Your task to perform on an android device: uninstall "ColorNote Notepad Notes" Image 0: 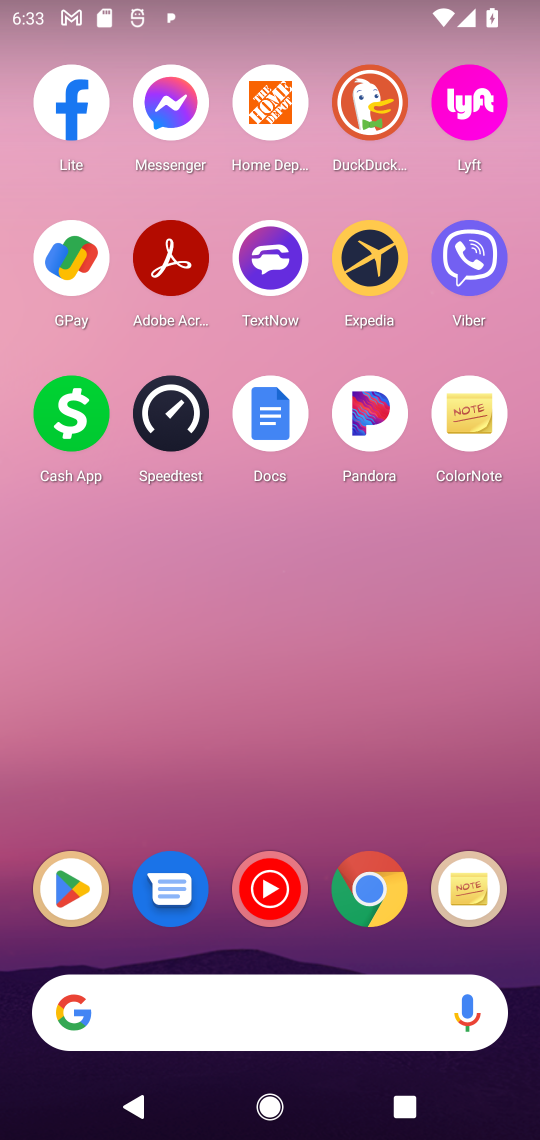
Step 0: drag from (310, 605) to (272, 468)
Your task to perform on an android device: uninstall "ColorNote Notepad Notes" Image 1: 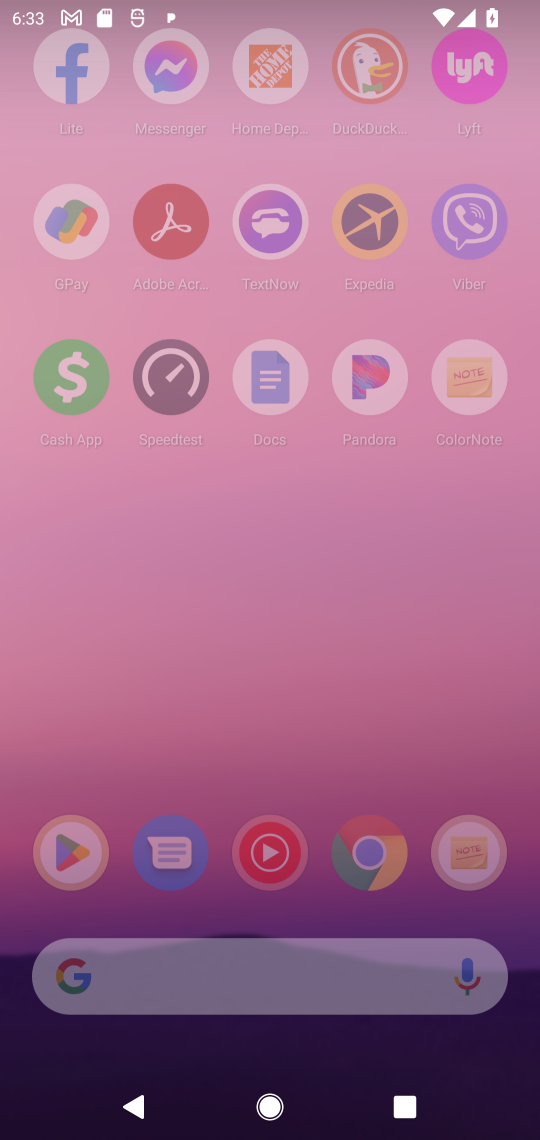
Step 1: drag from (344, 688) to (312, 352)
Your task to perform on an android device: uninstall "ColorNote Notepad Notes" Image 2: 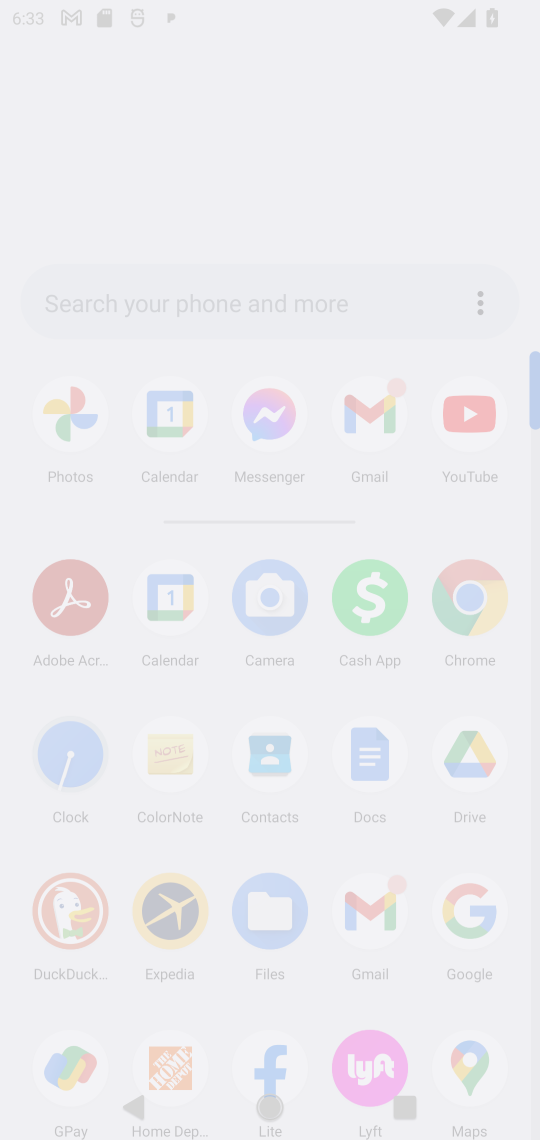
Step 2: drag from (290, 729) to (198, 310)
Your task to perform on an android device: uninstall "ColorNote Notepad Notes" Image 3: 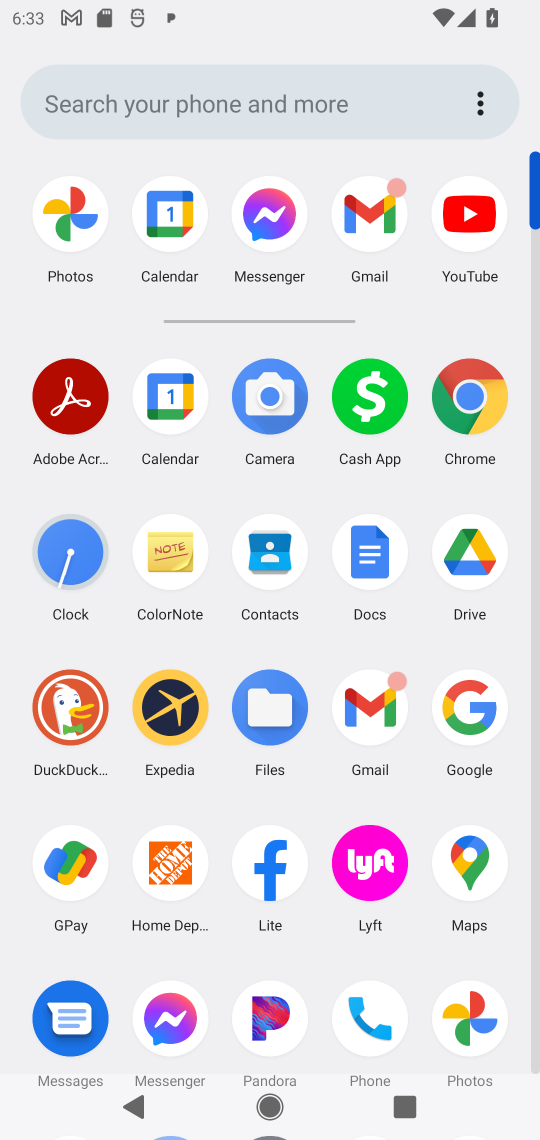
Step 3: drag from (318, 858) to (295, 250)
Your task to perform on an android device: uninstall "ColorNote Notepad Notes" Image 4: 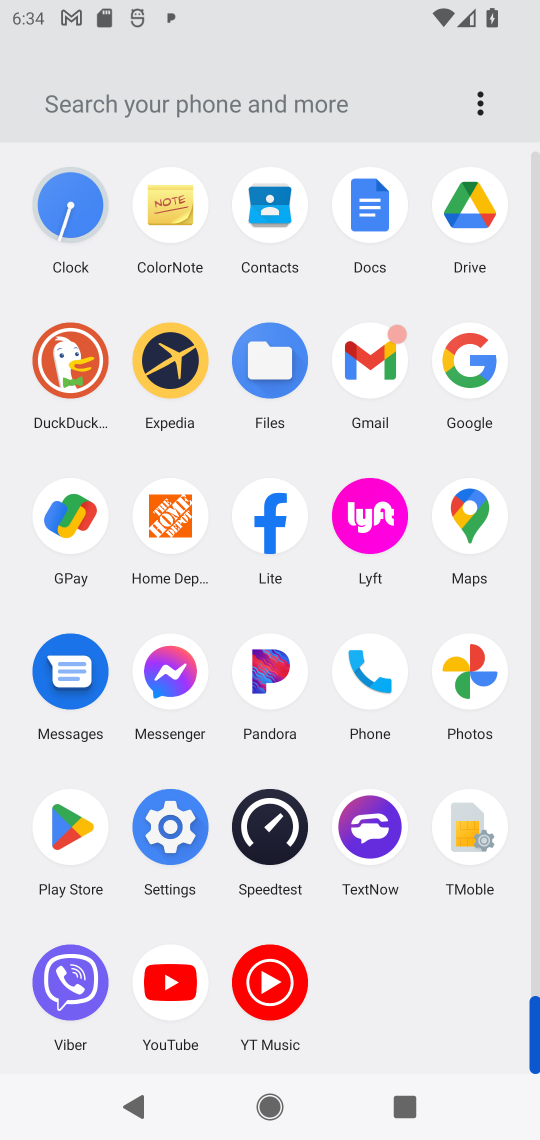
Step 4: click (70, 813)
Your task to perform on an android device: uninstall "ColorNote Notepad Notes" Image 5: 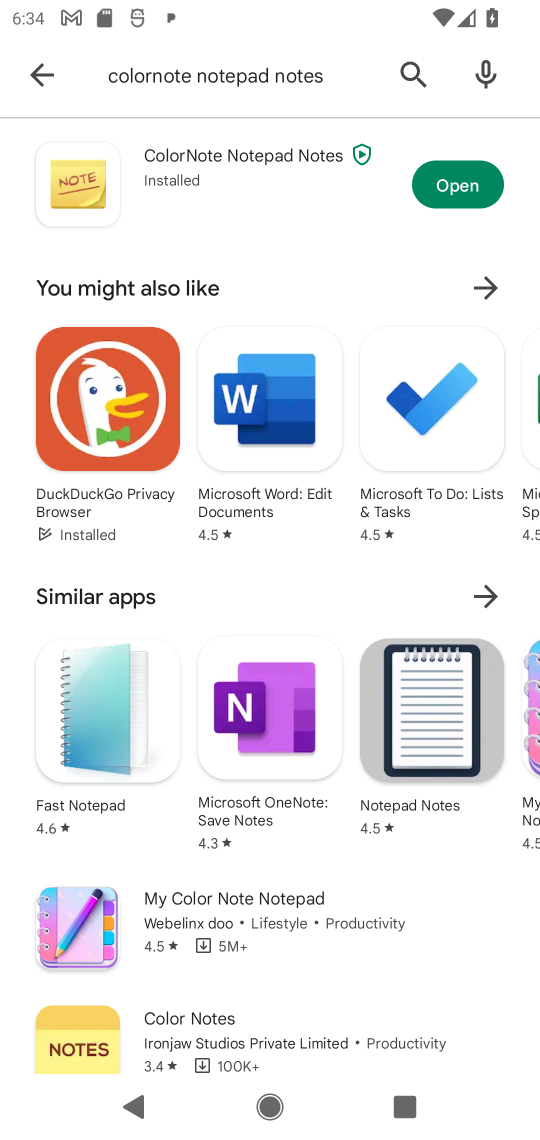
Step 5: click (79, 828)
Your task to perform on an android device: uninstall "ColorNote Notepad Notes" Image 6: 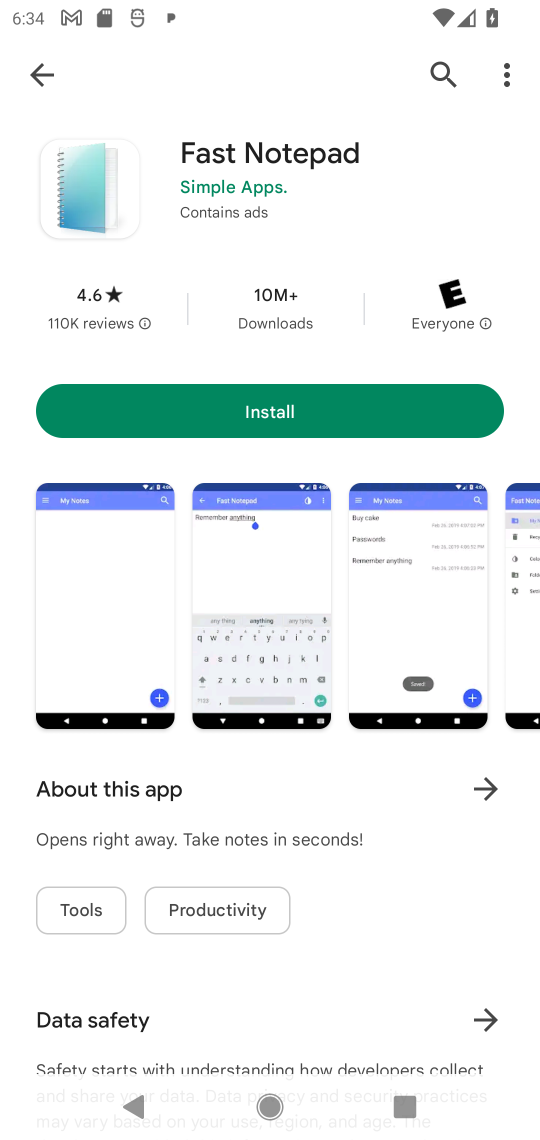
Step 6: click (41, 72)
Your task to perform on an android device: uninstall "ColorNote Notepad Notes" Image 7: 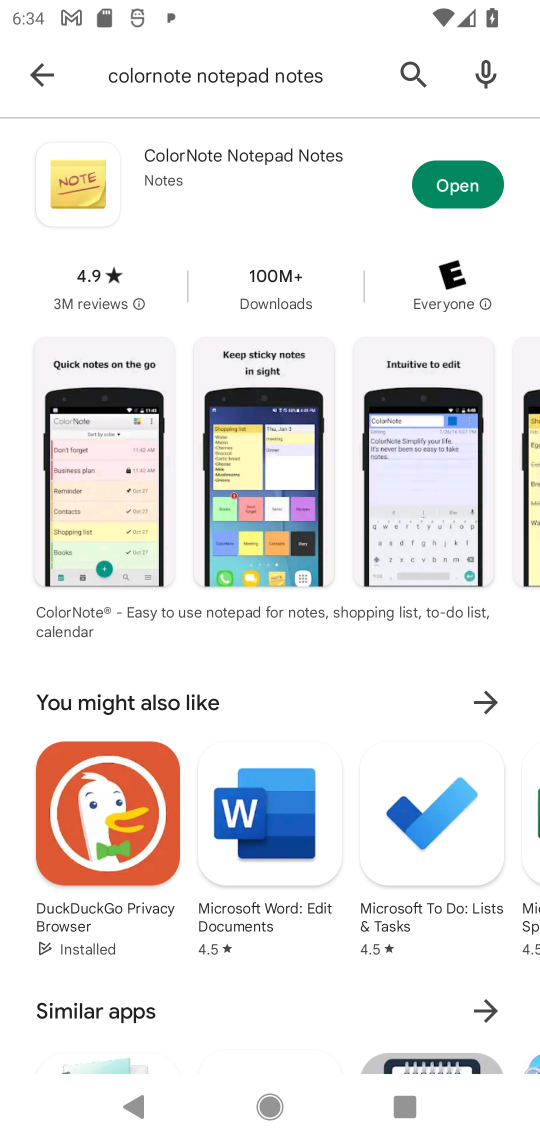
Step 7: click (42, 69)
Your task to perform on an android device: uninstall "ColorNote Notepad Notes" Image 8: 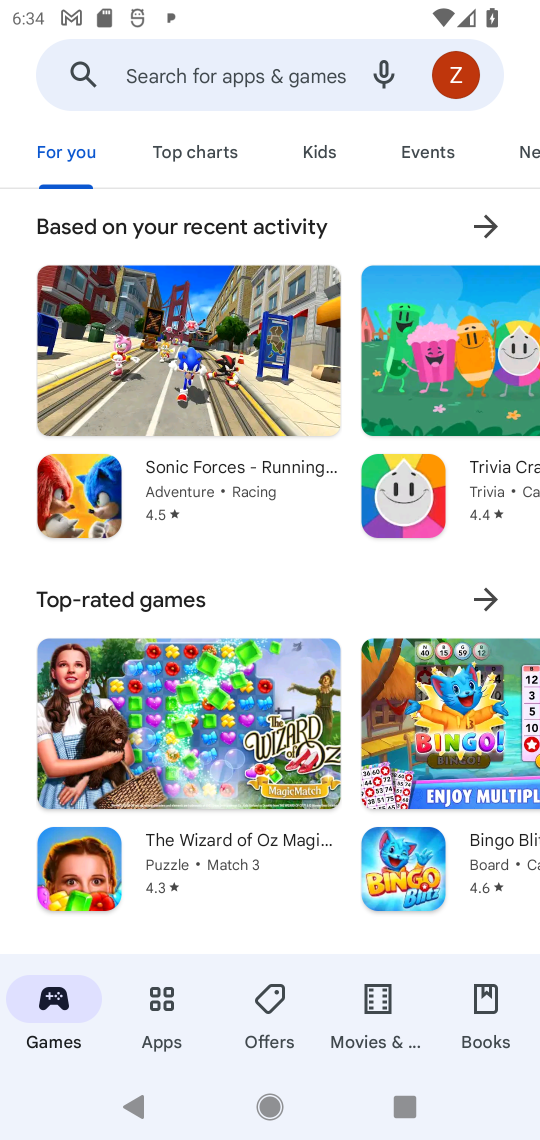
Step 8: click (167, 64)
Your task to perform on an android device: uninstall "ColorNote Notepad Notes" Image 9: 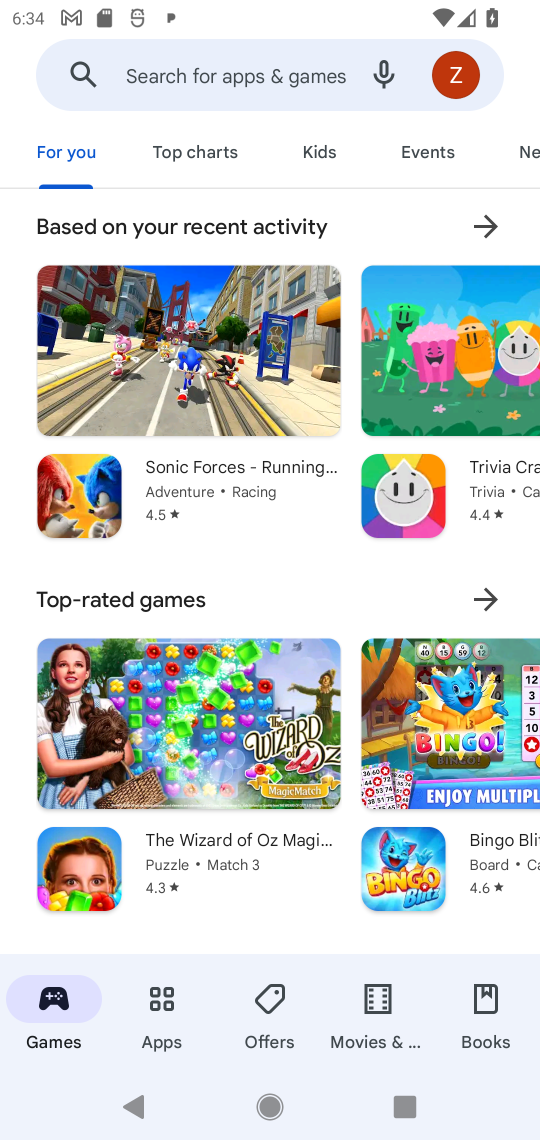
Step 9: click (167, 64)
Your task to perform on an android device: uninstall "ColorNote Notepad Notes" Image 10: 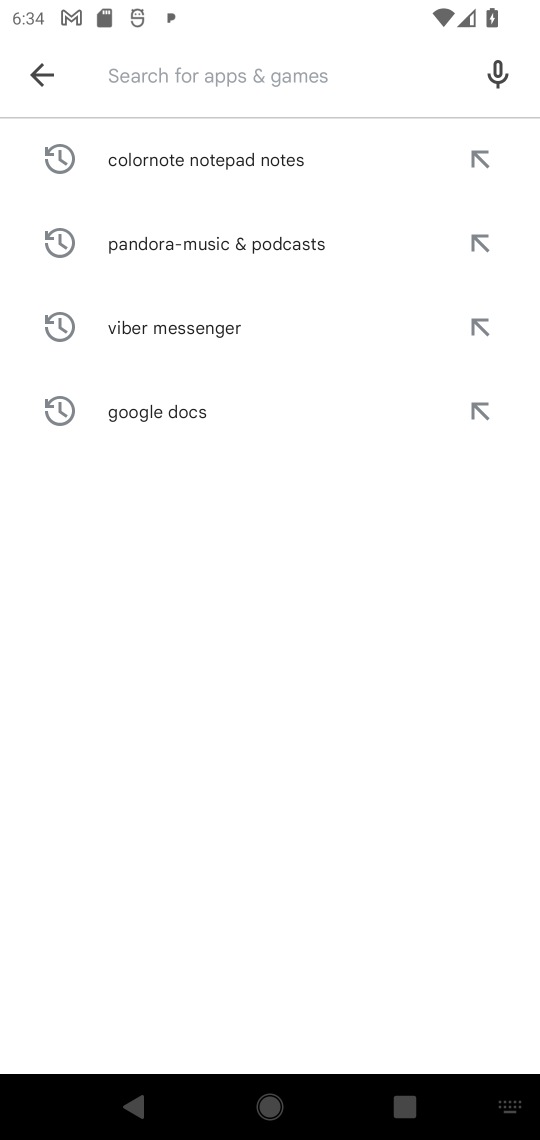
Step 10: click (187, 75)
Your task to perform on an android device: uninstall "ColorNote Notepad Notes" Image 11: 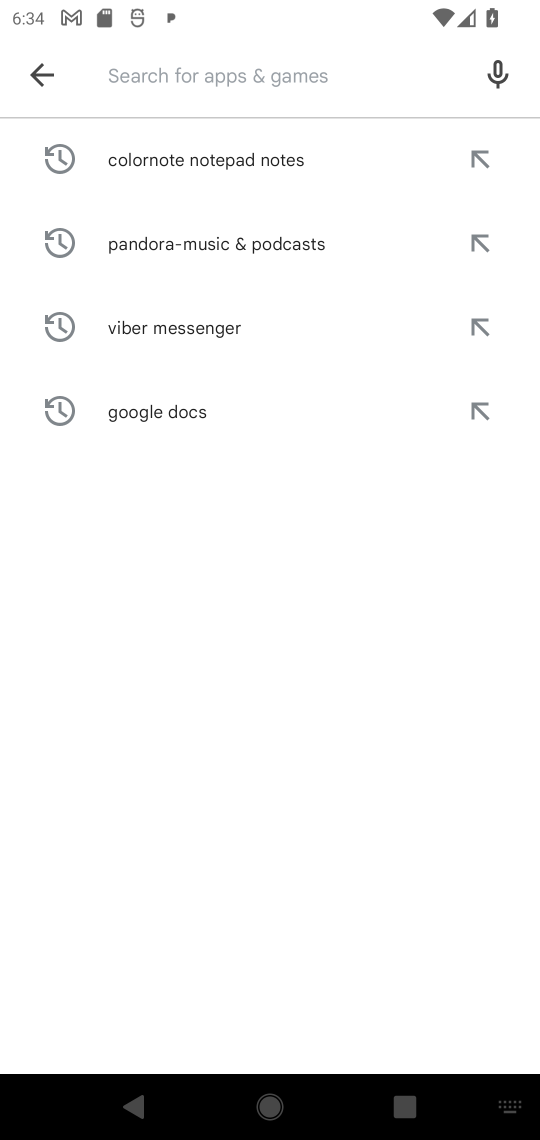
Step 11: click (187, 75)
Your task to perform on an android device: uninstall "ColorNote Notepad Notes" Image 12: 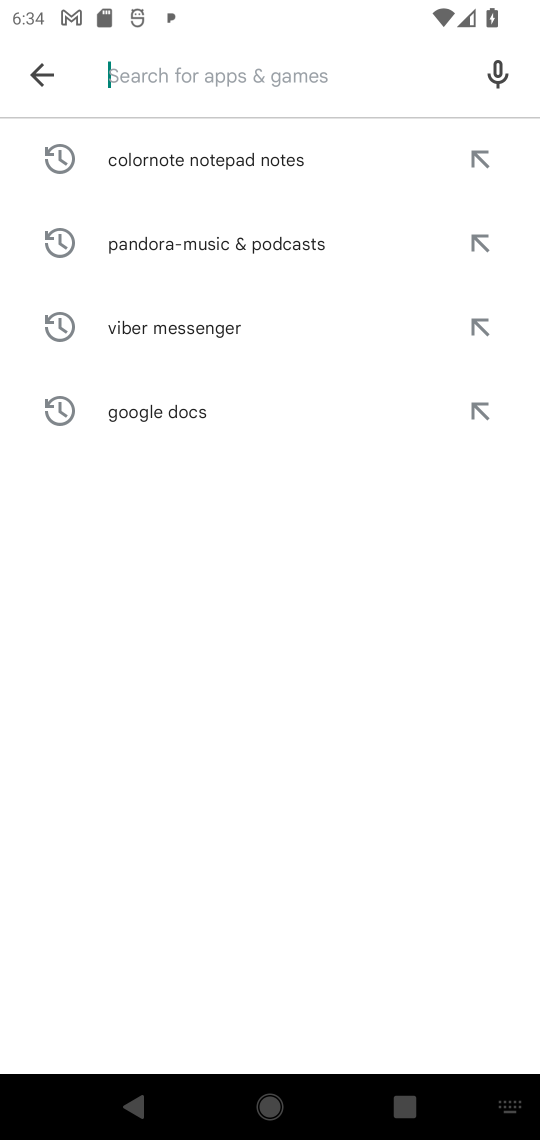
Step 12: click (473, 152)
Your task to perform on an android device: uninstall "ColorNote Notepad Notes" Image 13: 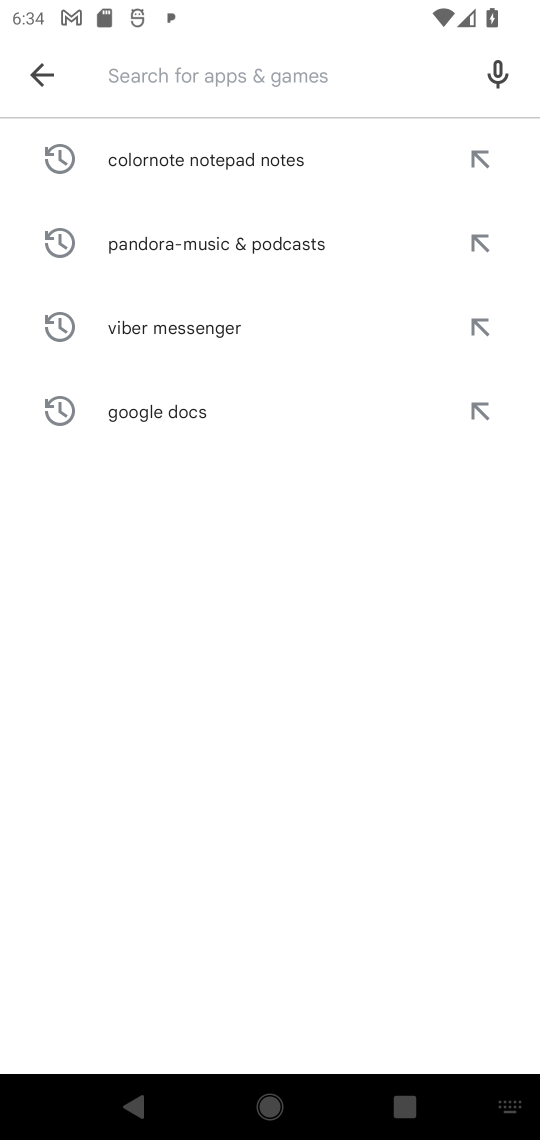
Step 13: click (476, 150)
Your task to perform on an android device: uninstall "ColorNote Notepad Notes" Image 14: 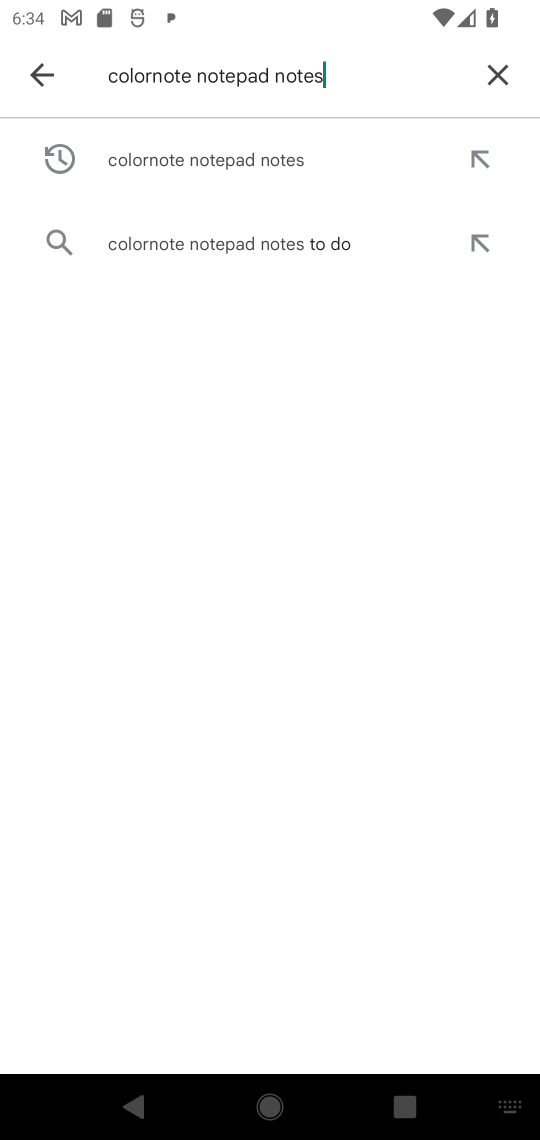
Step 14: click (244, 153)
Your task to perform on an android device: uninstall "ColorNote Notepad Notes" Image 15: 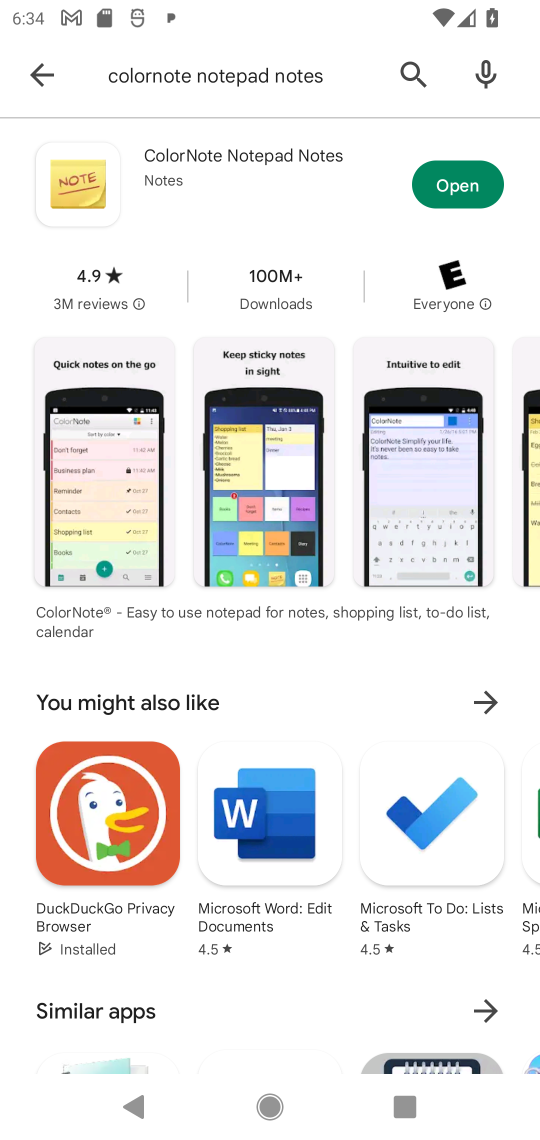
Step 15: click (453, 188)
Your task to perform on an android device: uninstall "ColorNote Notepad Notes" Image 16: 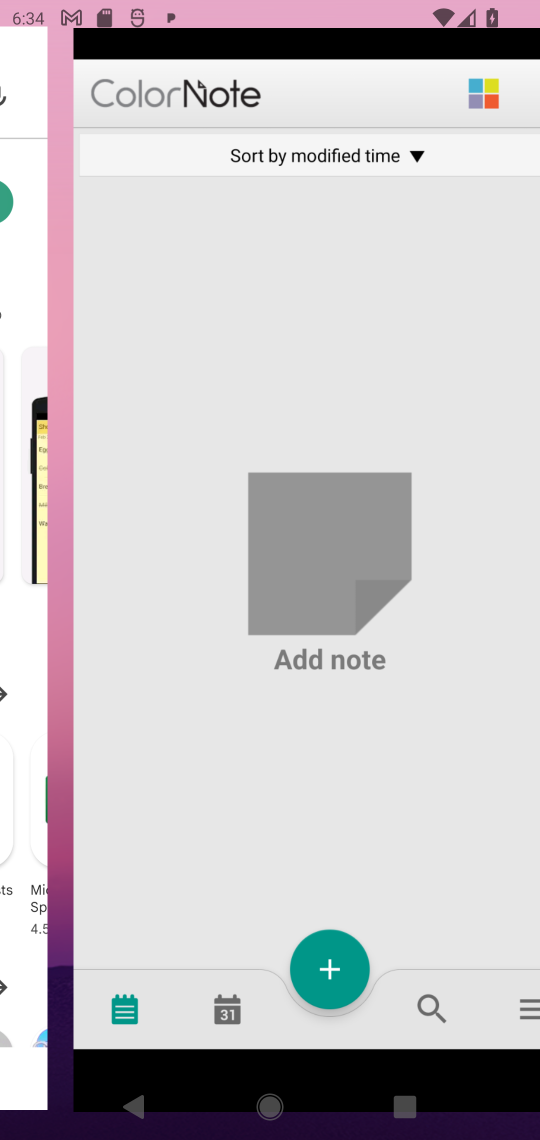
Step 16: click (456, 182)
Your task to perform on an android device: uninstall "ColorNote Notepad Notes" Image 17: 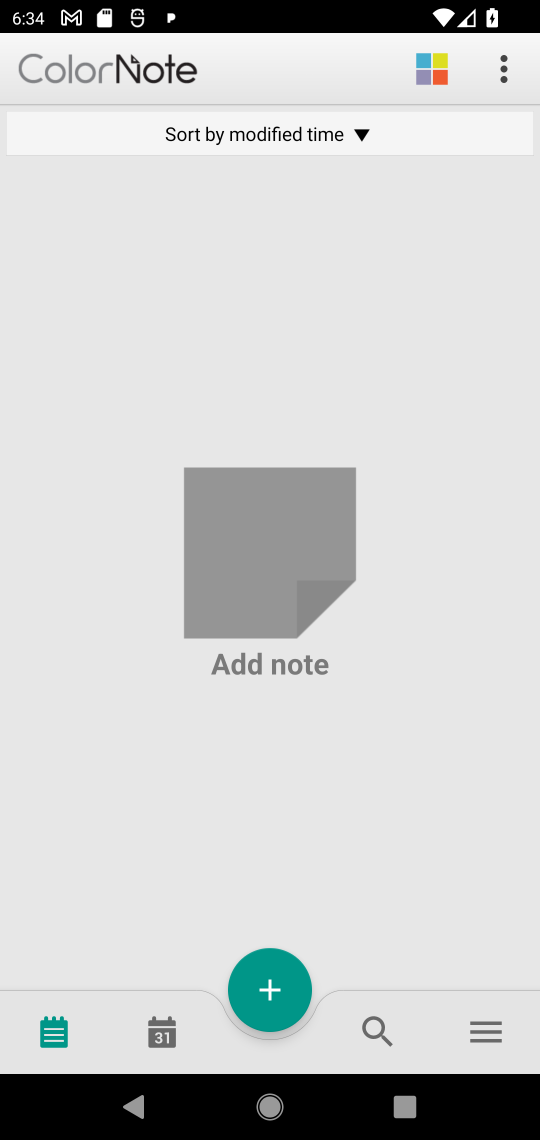
Step 17: press back button
Your task to perform on an android device: uninstall "ColorNote Notepad Notes" Image 18: 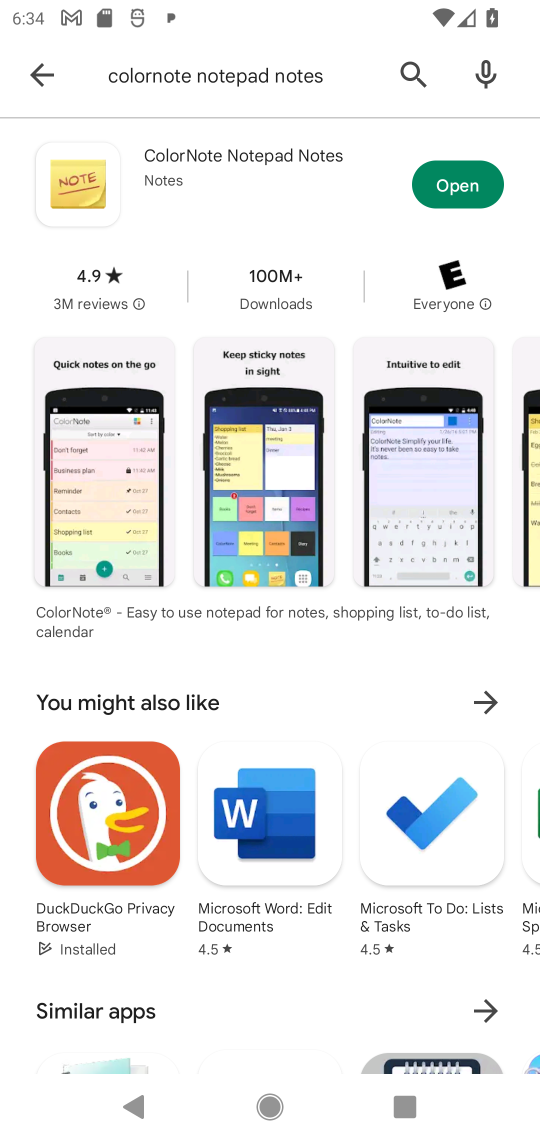
Step 18: click (72, 188)
Your task to perform on an android device: uninstall "ColorNote Notepad Notes" Image 19: 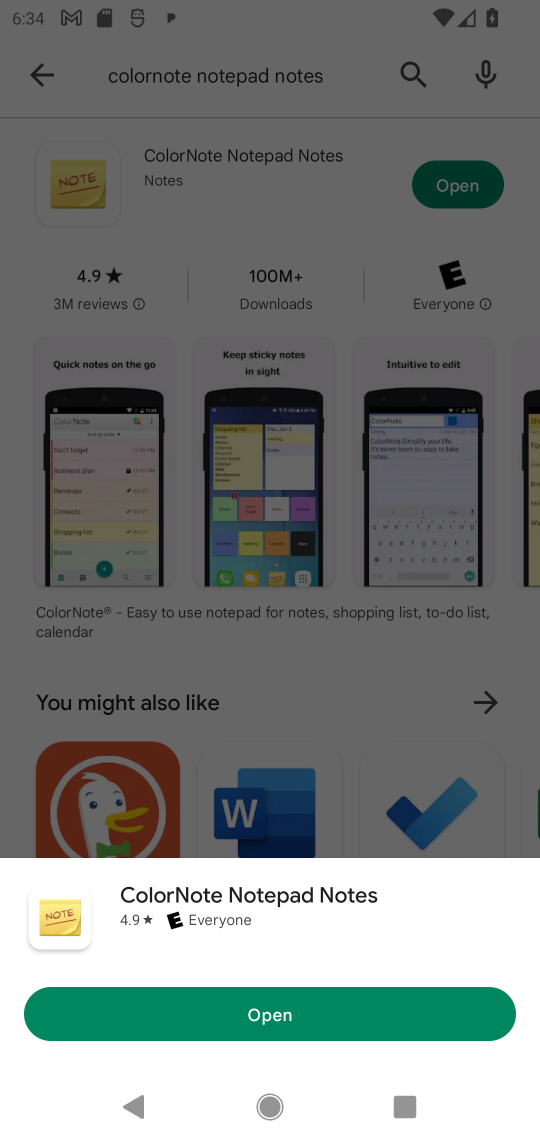
Step 19: click (75, 191)
Your task to perform on an android device: uninstall "ColorNote Notepad Notes" Image 20: 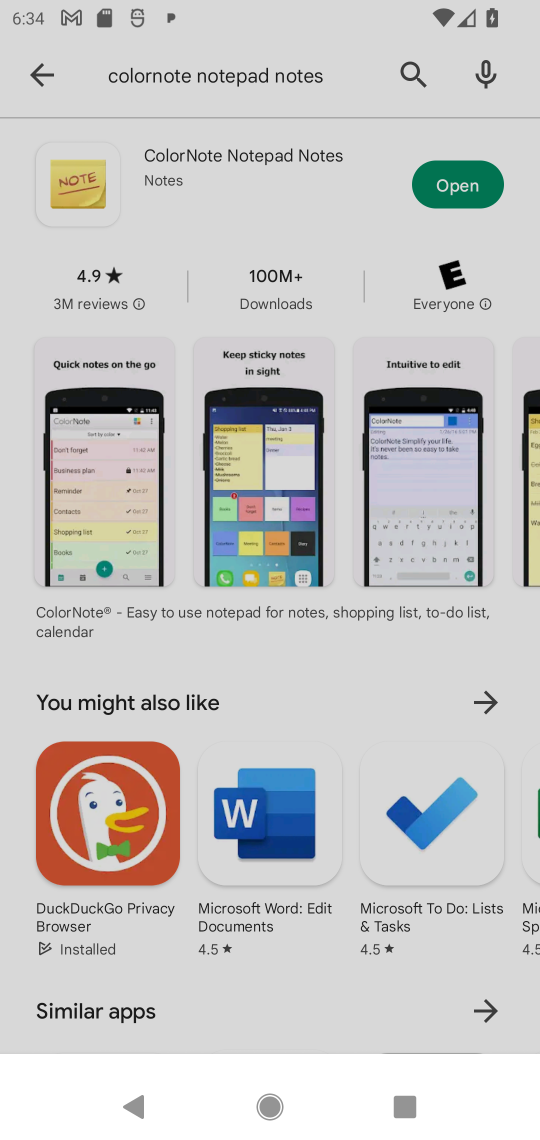
Step 20: click (46, 70)
Your task to perform on an android device: uninstall "ColorNote Notepad Notes" Image 21: 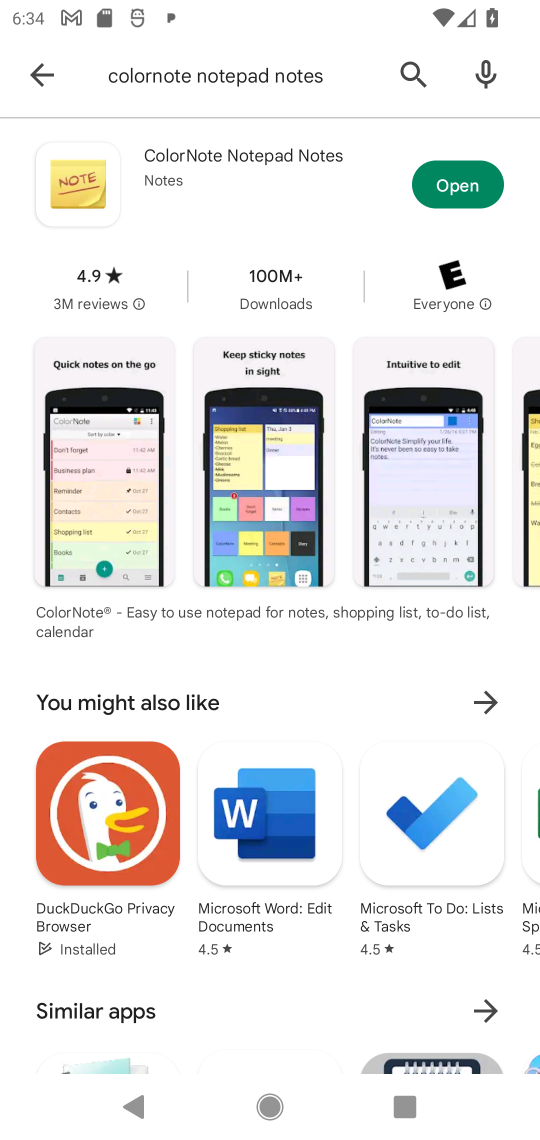
Step 21: click (48, 67)
Your task to perform on an android device: uninstall "ColorNote Notepad Notes" Image 22: 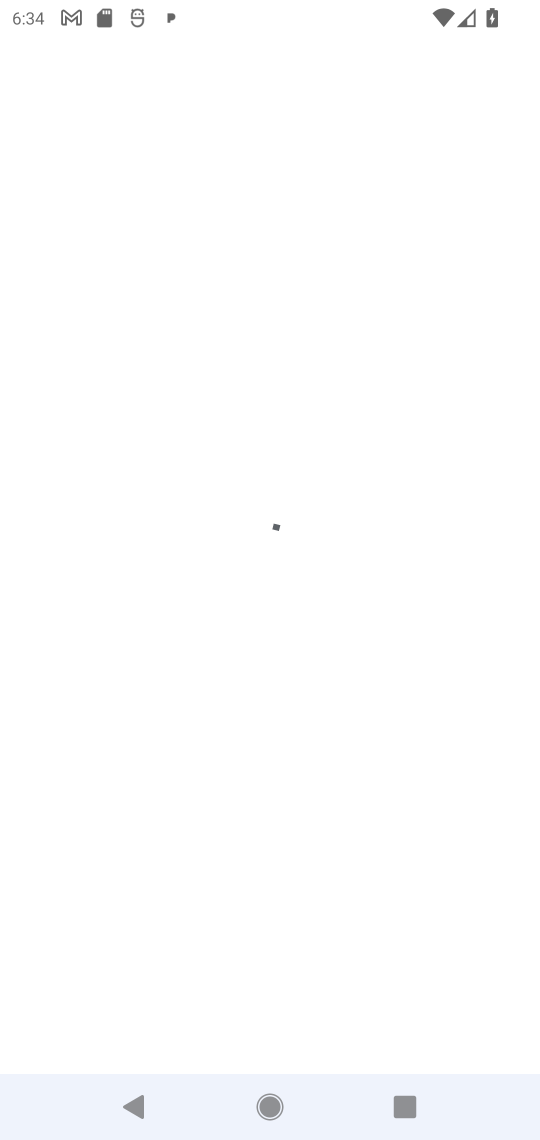
Step 22: click (48, 67)
Your task to perform on an android device: uninstall "ColorNote Notepad Notes" Image 23: 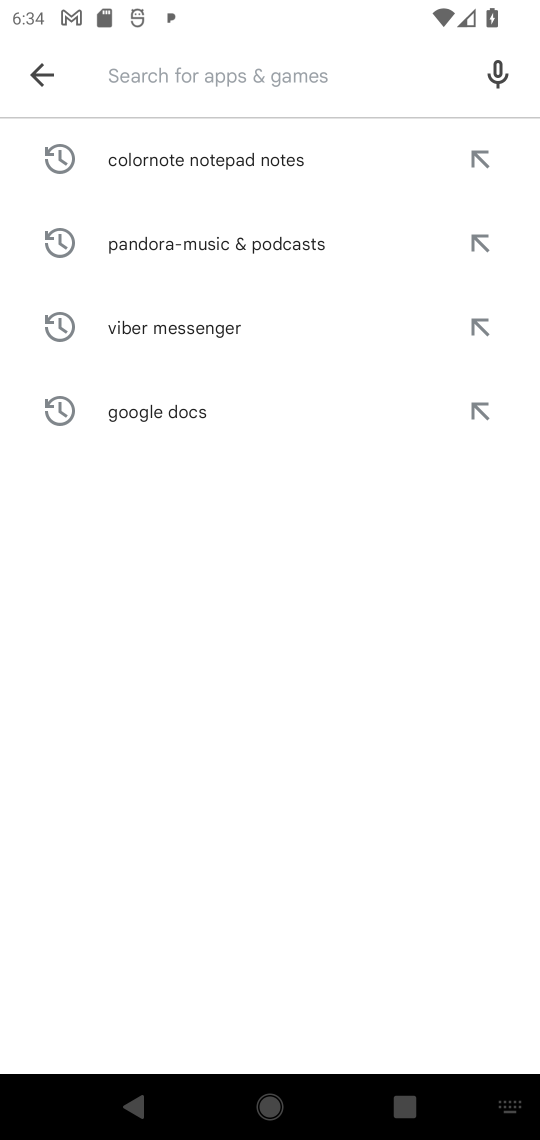
Step 23: click (230, 143)
Your task to perform on an android device: uninstall "ColorNote Notepad Notes" Image 24: 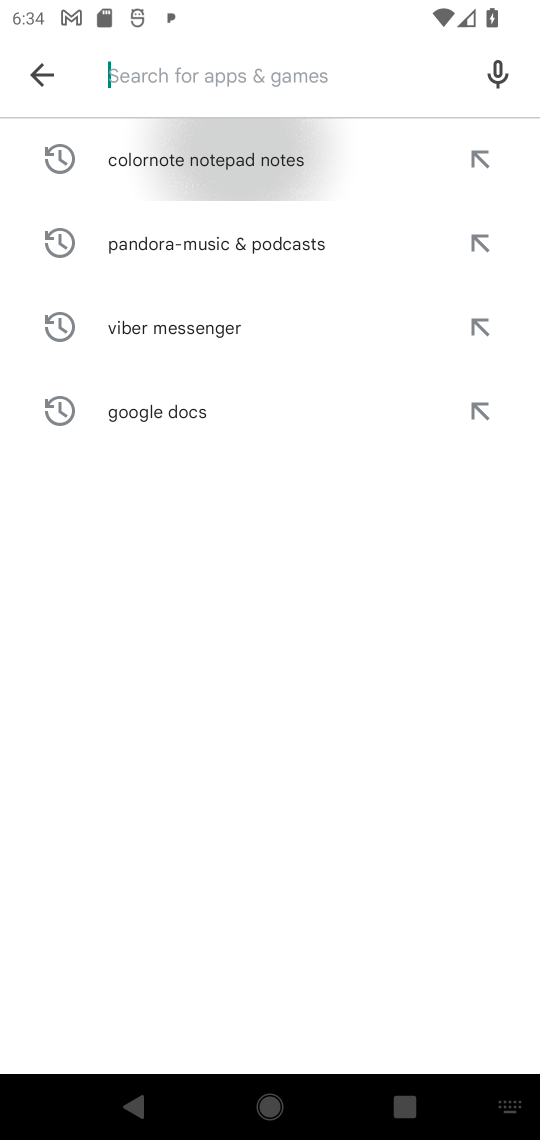
Step 24: click (248, 154)
Your task to perform on an android device: uninstall "ColorNote Notepad Notes" Image 25: 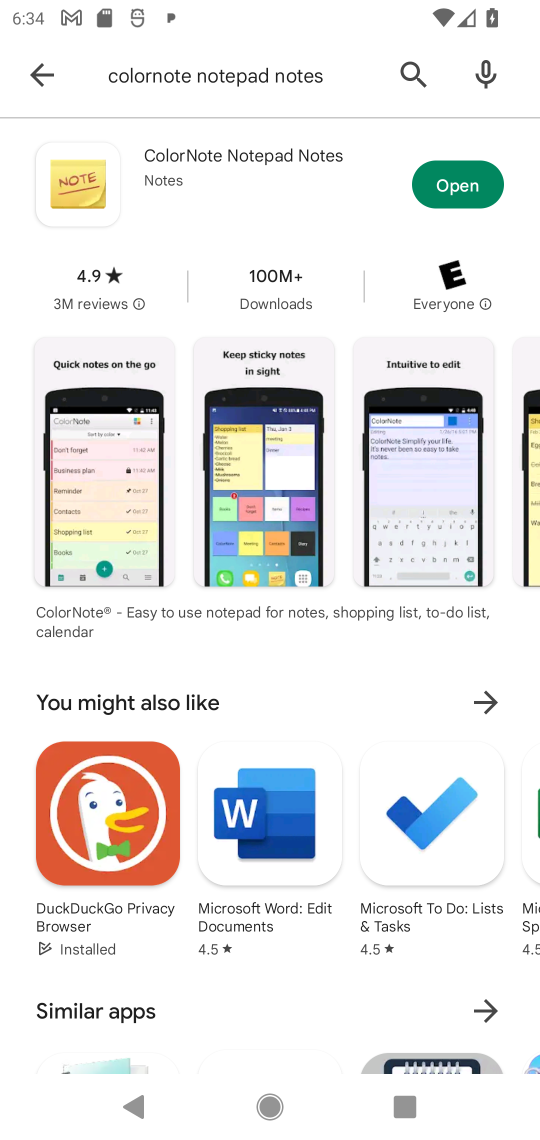
Step 25: task complete